Your task to perform on an android device: add a contact in the contacts app Image 0: 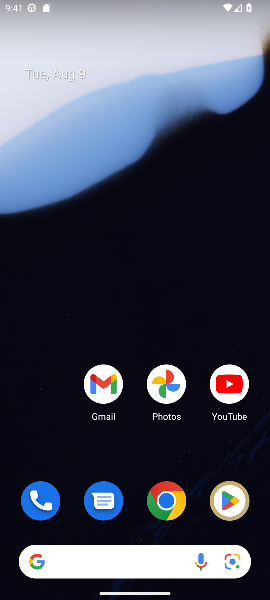
Step 0: drag from (135, 512) to (149, 92)
Your task to perform on an android device: add a contact in the contacts app Image 1: 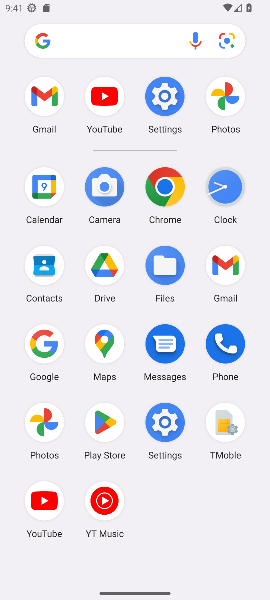
Step 1: click (44, 275)
Your task to perform on an android device: add a contact in the contacts app Image 2: 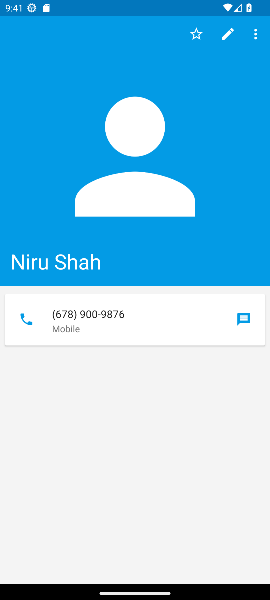
Step 2: press back button
Your task to perform on an android device: add a contact in the contacts app Image 3: 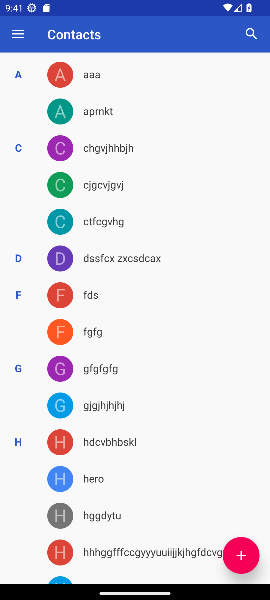
Step 3: click (239, 555)
Your task to perform on an android device: add a contact in the contacts app Image 4: 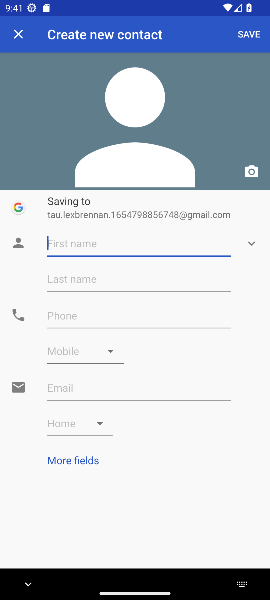
Step 4: type "Dharu"
Your task to perform on an android device: add a contact in the contacts app Image 5: 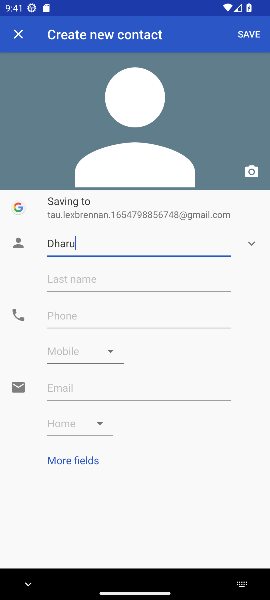
Step 5: click (156, 281)
Your task to perform on an android device: add a contact in the contacts app Image 6: 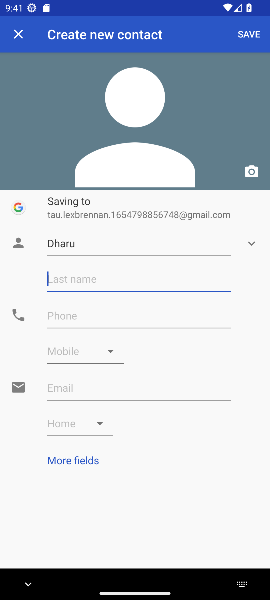
Step 6: type "Heda"
Your task to perform on an android device: add a contact in the contacts app Image 7: 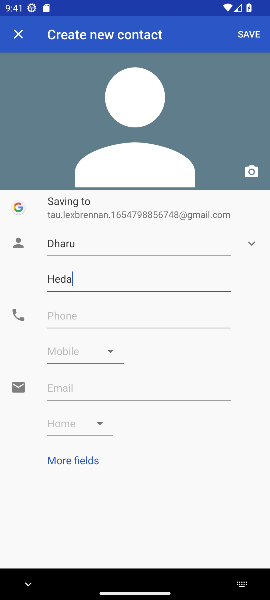
Step 7: click (133, 309)
Your task to perform on an android device: add a contact in the contacts app Image 8: 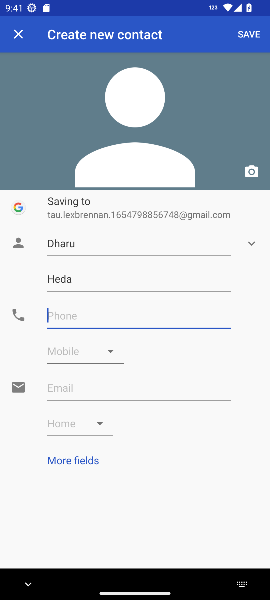
Step 8: type "0789009876"
Your task to perform on an android device: add a contact in the contacts app Image 9: 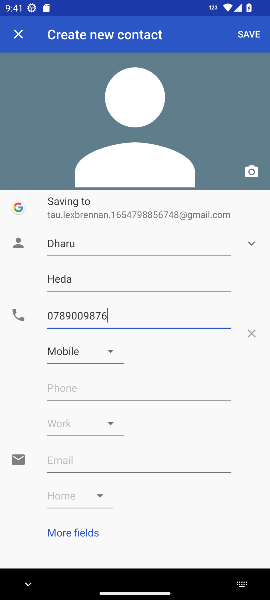
Step 9: click (237, 37)
Your task to perform on an android device: add a contact in the contacts app Image 10: 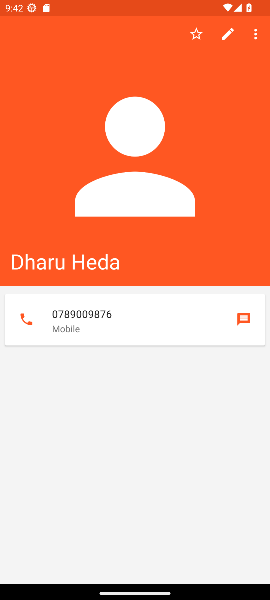
Step 10: task complete